Your task to perform on an android device: set default search engine in the chrome app Image 0: 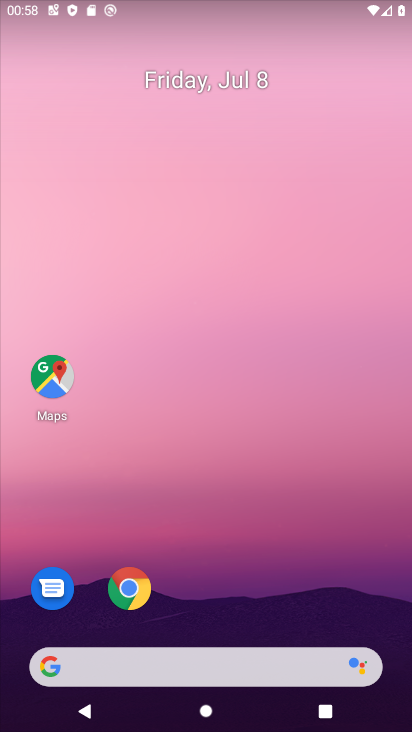
Step 0: drag from (185, 606) to (136, 23)
Your task to perform on an android device: set default search engine in the chrome app Image 1: 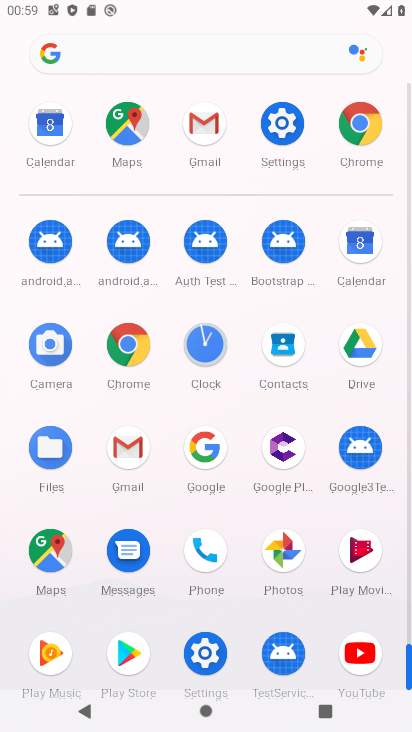
Step 1: click (122, 352)
Your task to perform on an android device: set default search engine in the chrome app Image 2: 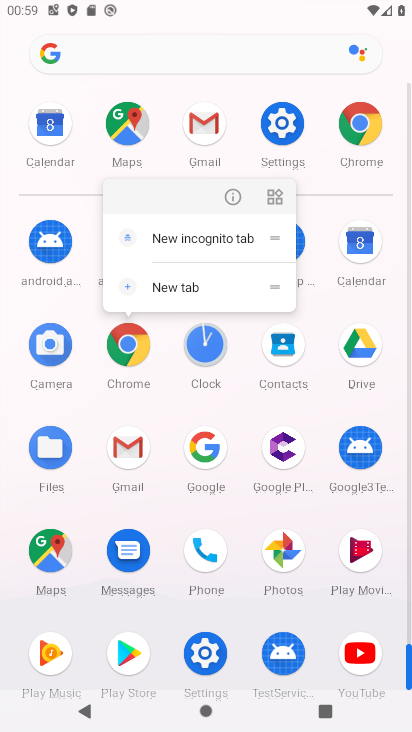
Step 2: click (236, 188)
Your task to perform on an android device: set default search engine in the chrome app Image 3: 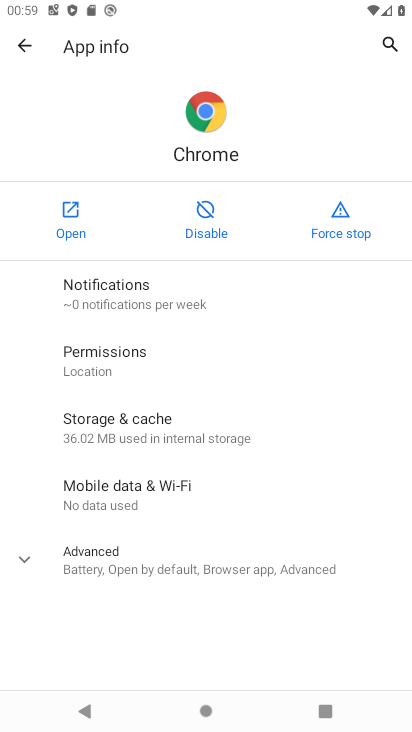
Step 3: click (73, 228)
Your task to perform on an android device: set default search engine in the chrome app Image 4: 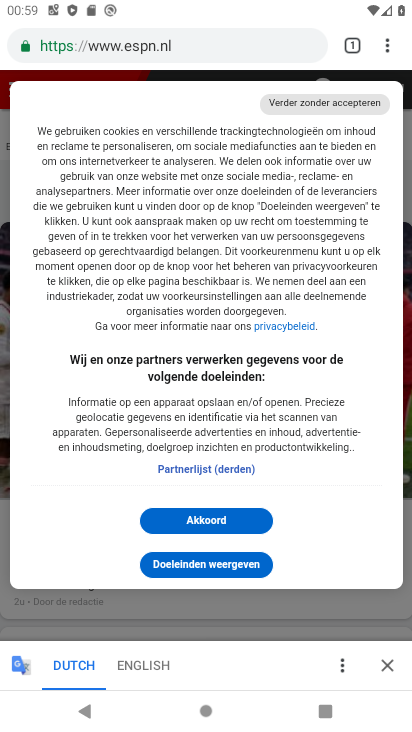
Step 4: click (394, 39)
Your task to perform on an android device: set default search engine in the chrome app Image 5: 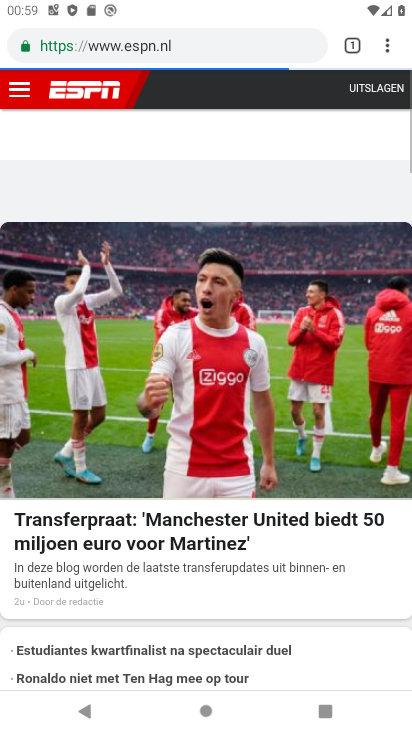
Step 5: click (395, 44)
Your task to perform on an android device: set default search engine in the chrome app Image 6: 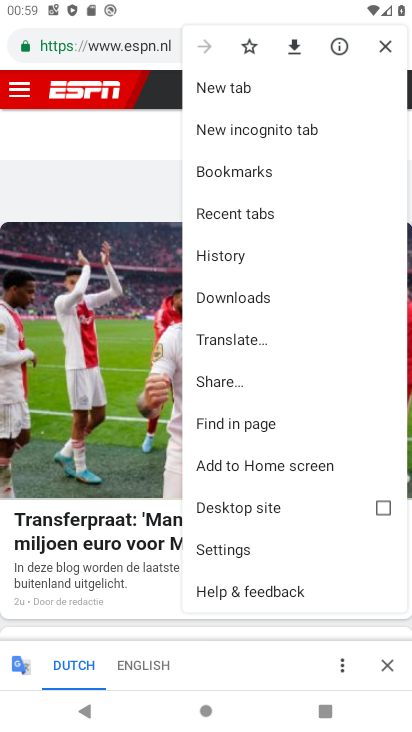
Step 6: click (242, 533)
Your task to perform on an android device: set default search engine in the chrome app Image 7: 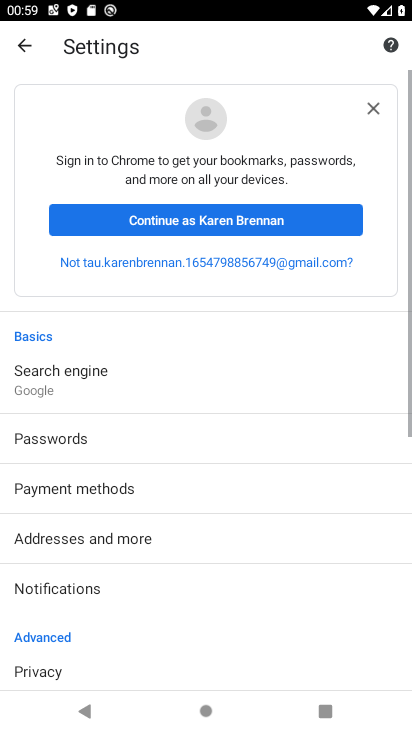
Step 7: drag from (115, 659) to (117, 344)
Your task to perform on an android device: set default search engine in the chrome app Image 8: 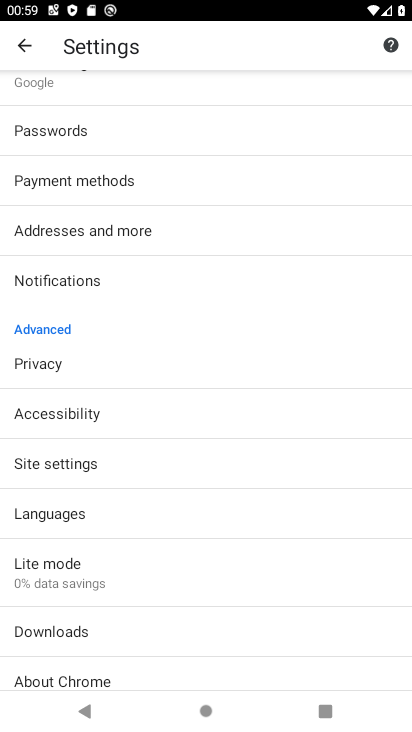
Step 8: drag from (100, 138) to (159, 393)
Your task to perform on an android device: set default search engine in the chrome app Image 9: 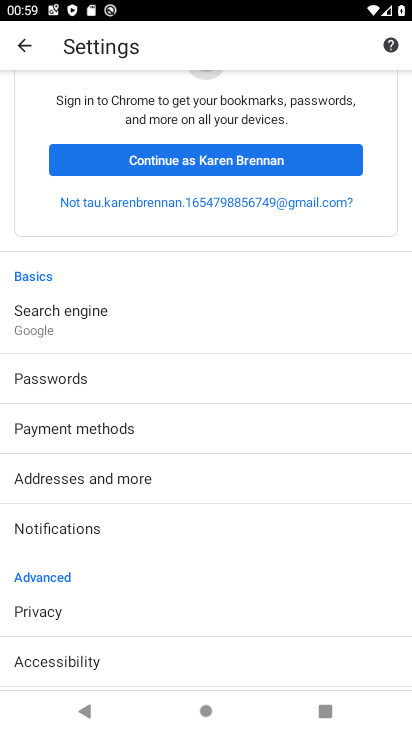
Step 9: click (59, 321)
Your task to perform on an android device: set default search engine in the chrome app Image 10: 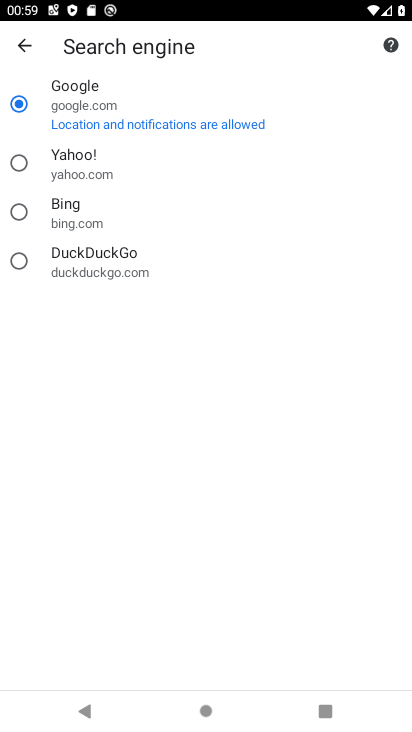
Step 10: drag from (196, 624) to (316, 187)
Your task to perform on an android device: set default search engine in the chrome app Image 11: 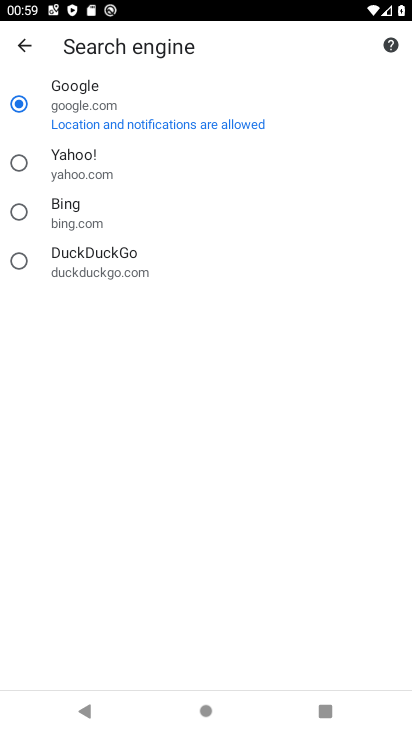
Step 11: drag from (98, 561) to (114, 356)
Your task to perform on an android device: set default search engine in the chrome app Image 12: 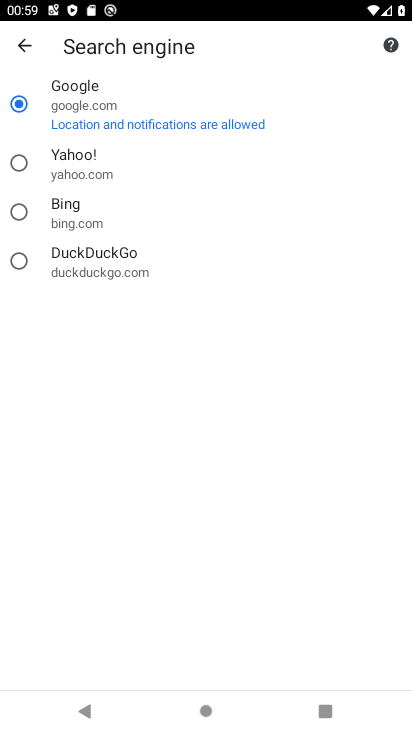
Step 12: press back button
Your task to perform on an android device: set default search engine in the chrome app Image 13: 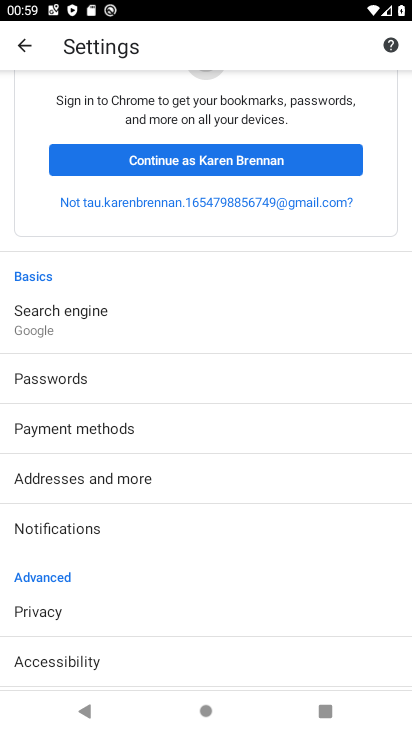
Step 13: drag from (188, 284) to (231, 528)
Your task to perform on an android device: set default search engine in the chrome app Image 14: 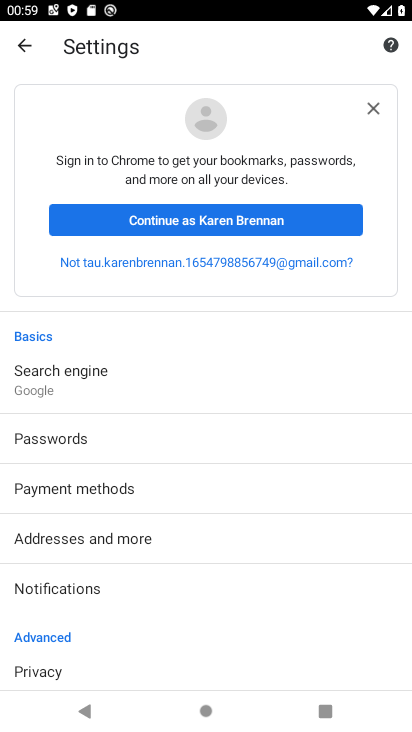
Step 14: click (118, 389)
Your task to perform on an android device: set default search engine in the chrome app Image 15: 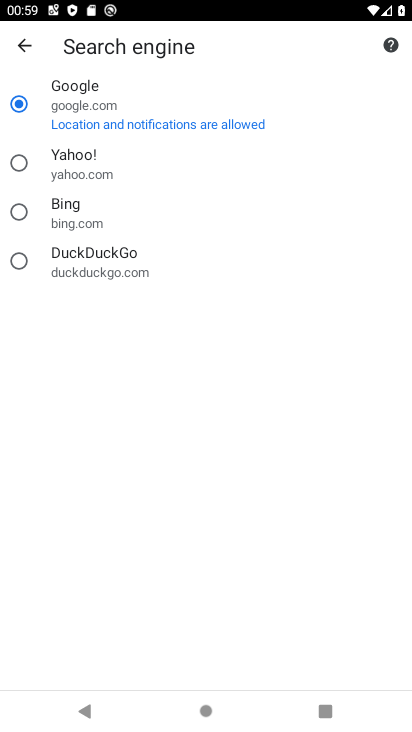
Step 15: task complete